Your task to perform on an android device: Is it going to rain today? Image 0: 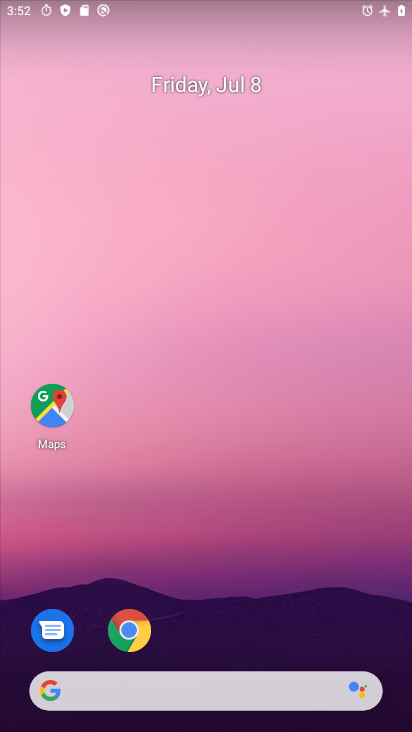
Step 0: click (192, 703)
Your task to perform on an android device: Is it going to rain today? Image 1: 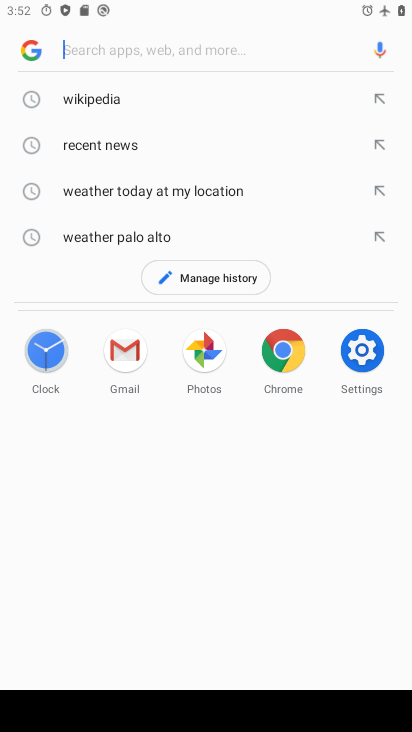
Step 1: type "Is it going to rain today?"
Your task to perform on an android device: Is it going to rain today? Image 2: 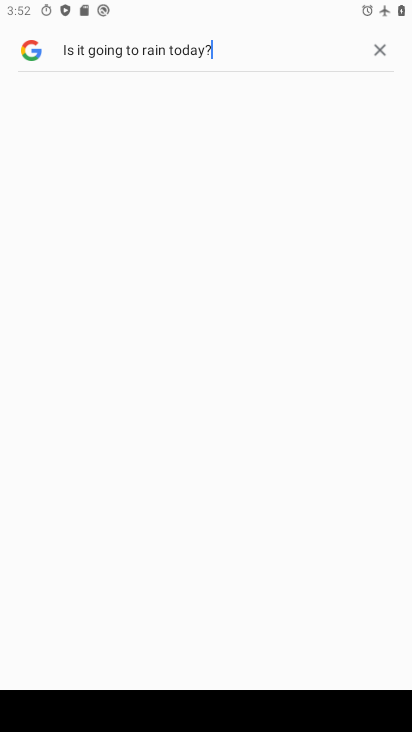
Step 2: press enter
Your task to perform on an android device: Is it going to rain today? Image 3: 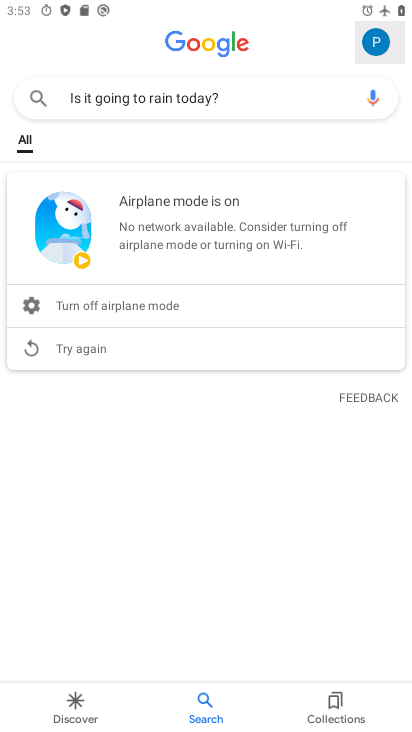
Step 3: task complete